Your task to perform on an android device: What's on my calendar today? Image 0: 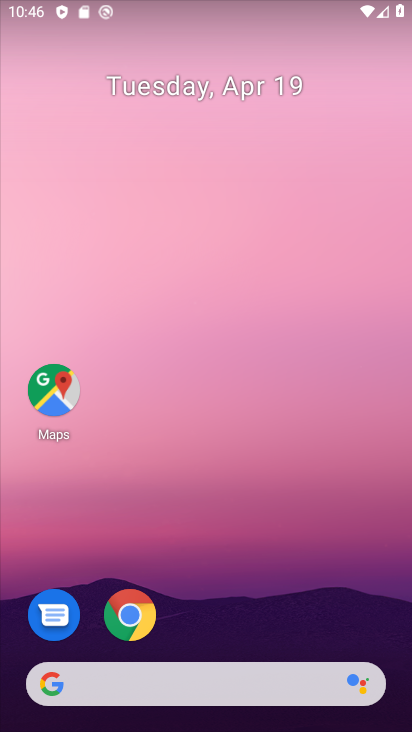
Step 0: drag from (278, 656) to (267, 267)
Your task to perform on an android device: What's on my calendar today? Image 1: 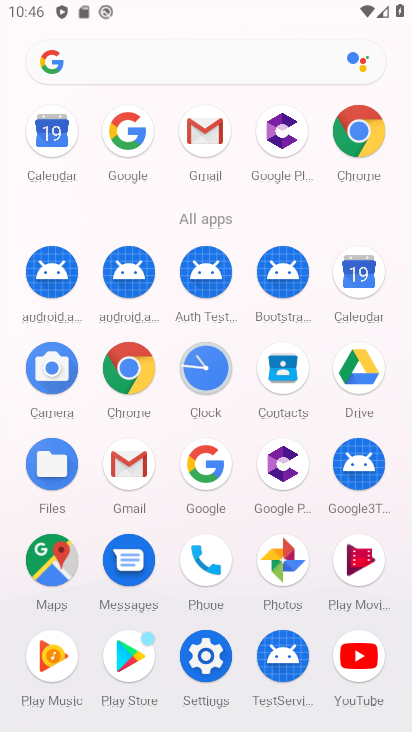
Step 1: click (359, 275)
Your task to perform on an android device: What's on my calendar today? Image 2: 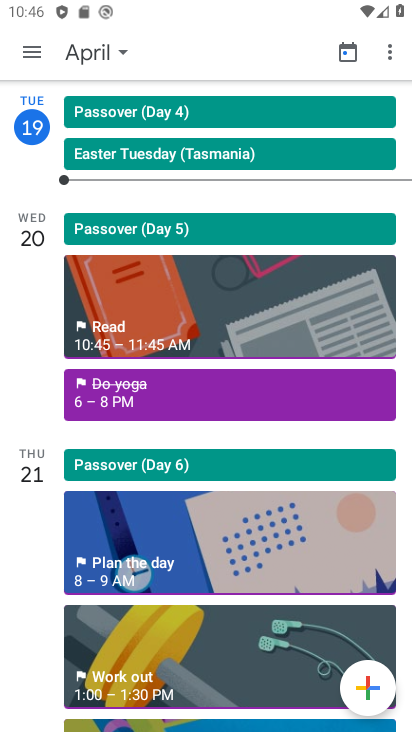
Step 2: click (85, 52)
Your task to perform on an android device: What's on my calendar today? Image 3: 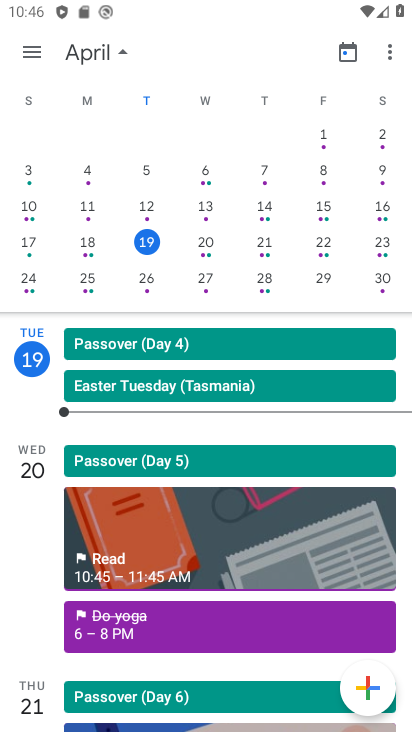
Step 3: task complete